Your task to perform on an android device: open app "Google Drive" Image 0: 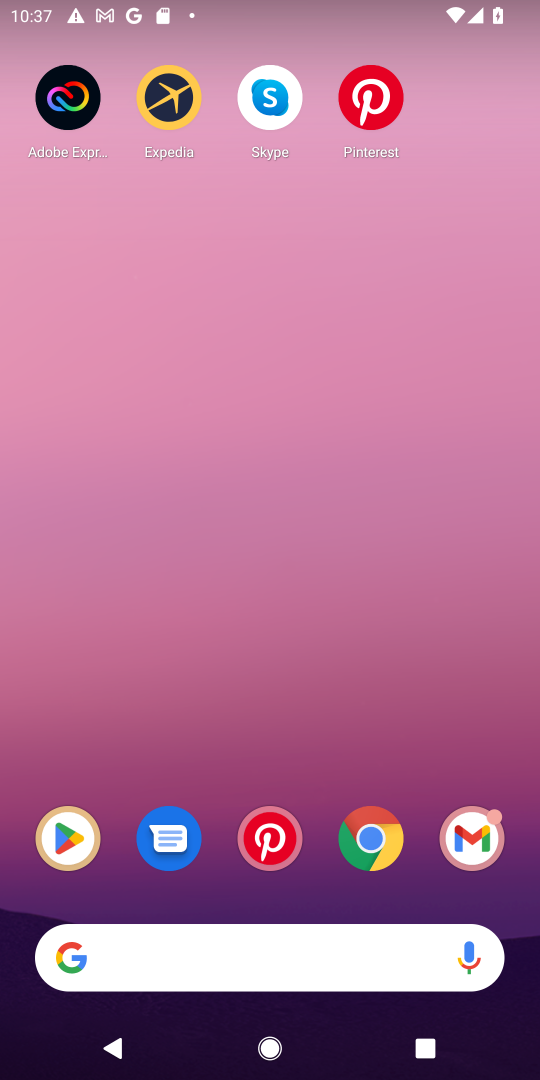
Step 0: drag from (313, 745) to (316, 158)
Your task to perform on an android device: open app "Google Drive" Image 1: 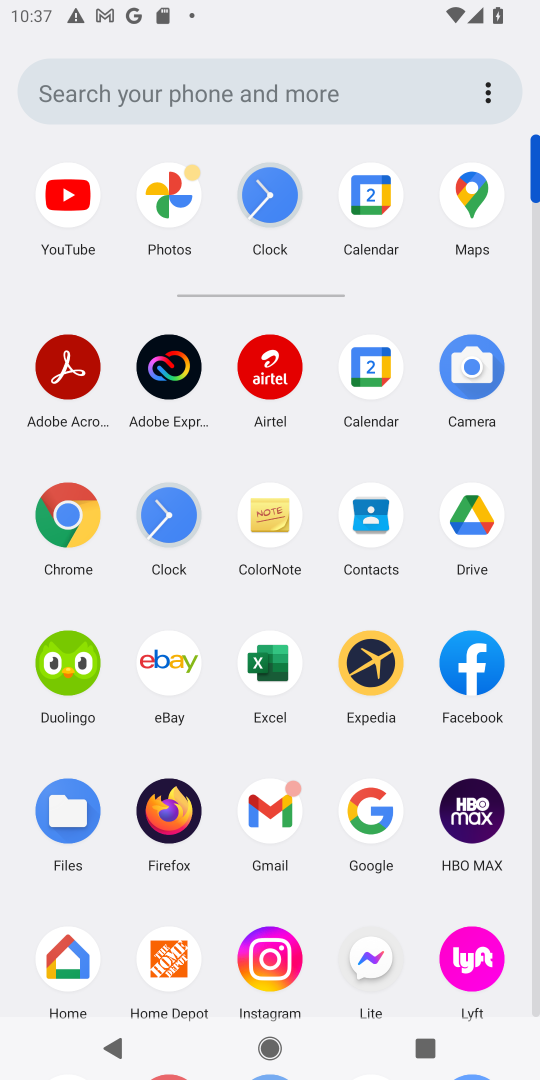
Step 1: drag from (313, 767) to (323, 392)
Your task to perform on an android device: open app "Google Drive" Image 2: 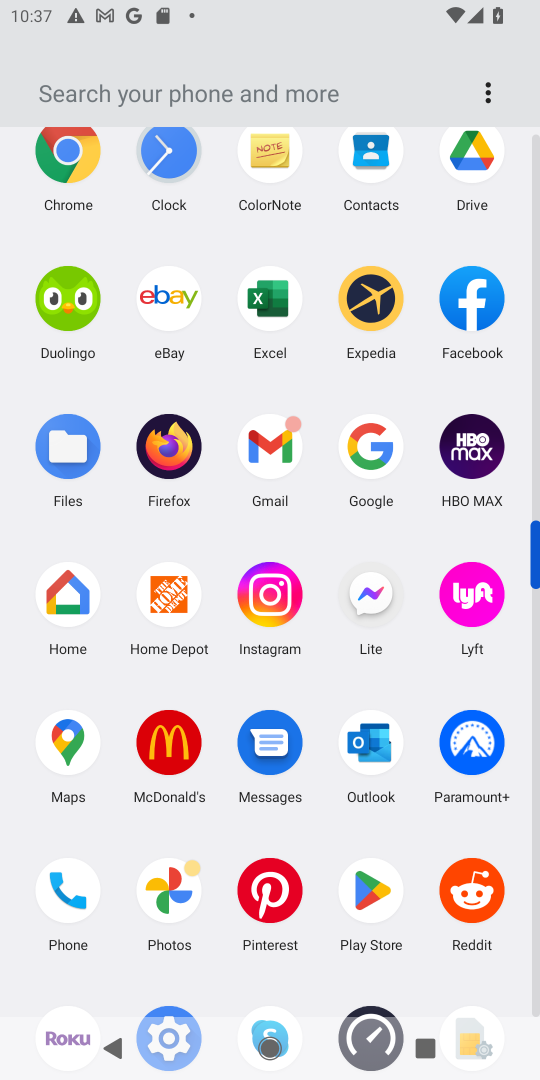
Step 2: drag from (313, 840) to (311, 547)
Your task to perform on an android device: open app "Google Drive" Image 3: 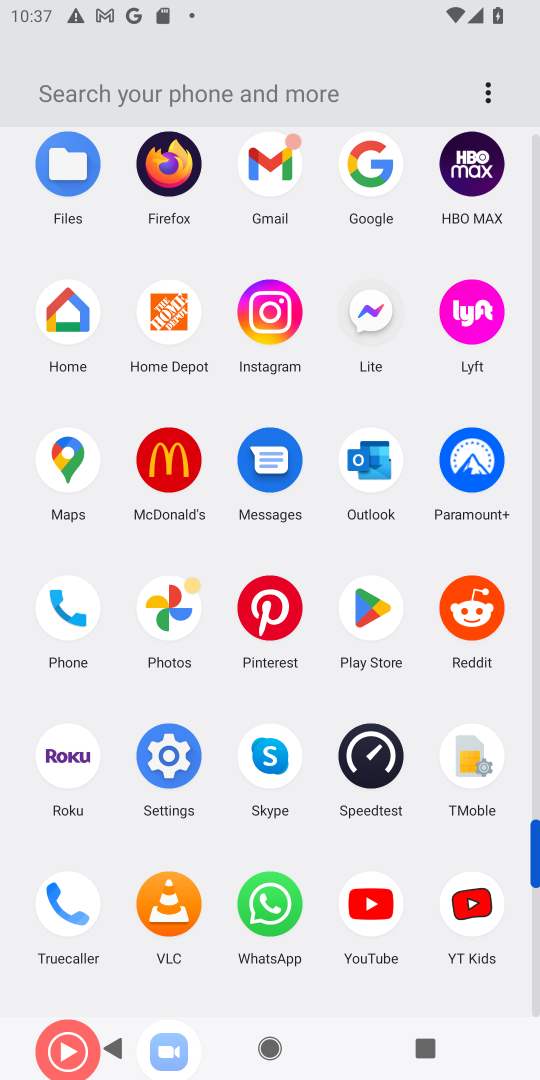
Step 3: click (374, 603)
Your task to perform on an android device: open app "Google Drive" Image 4: 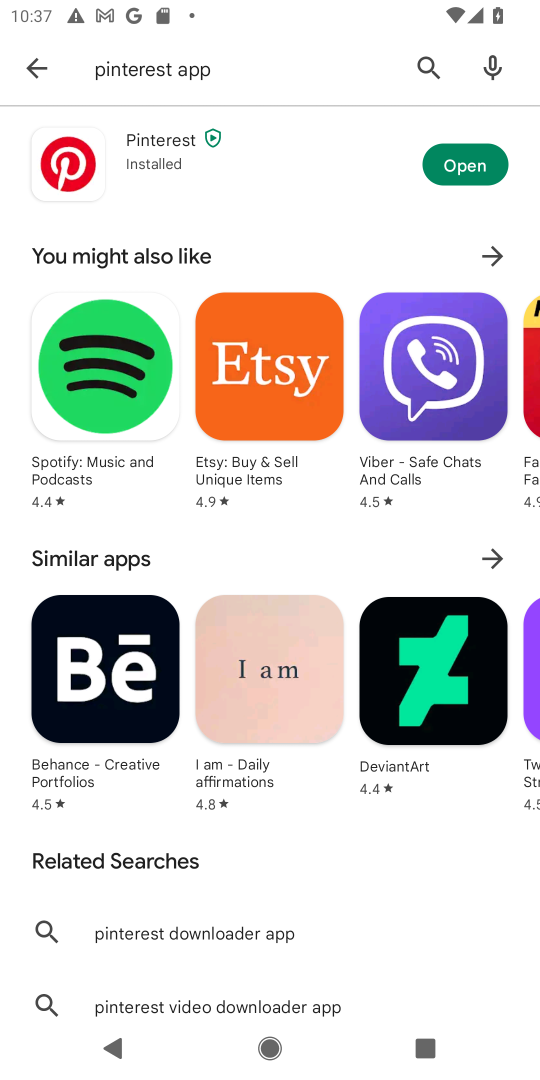
Step 4: click (425, 60)
Your task to perform on an android device: open app "Google Drive" Image 5: 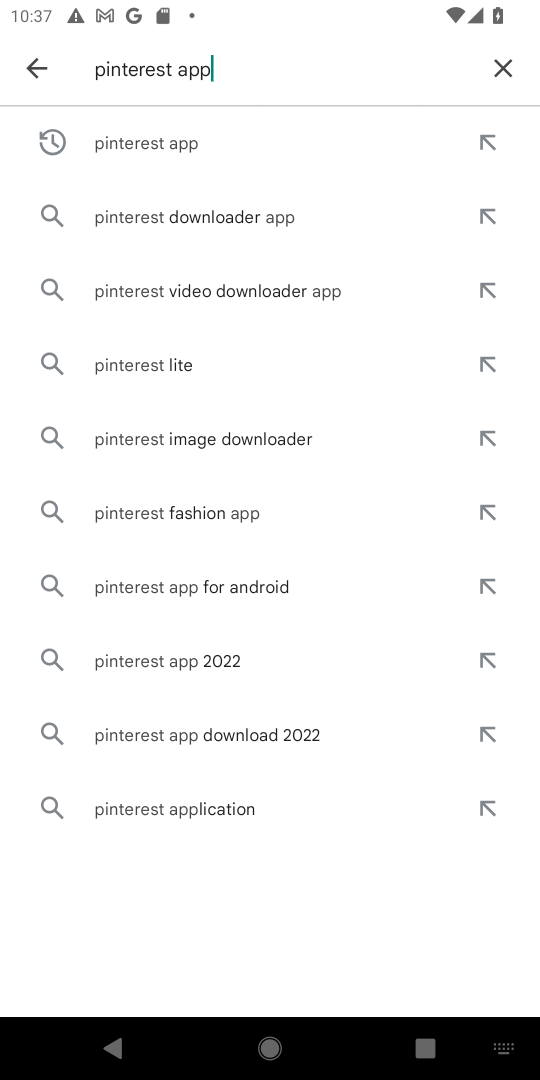
Step 5: click (509, 62)
Your task to perform on an android device: open app "Google Drive" Image 6: 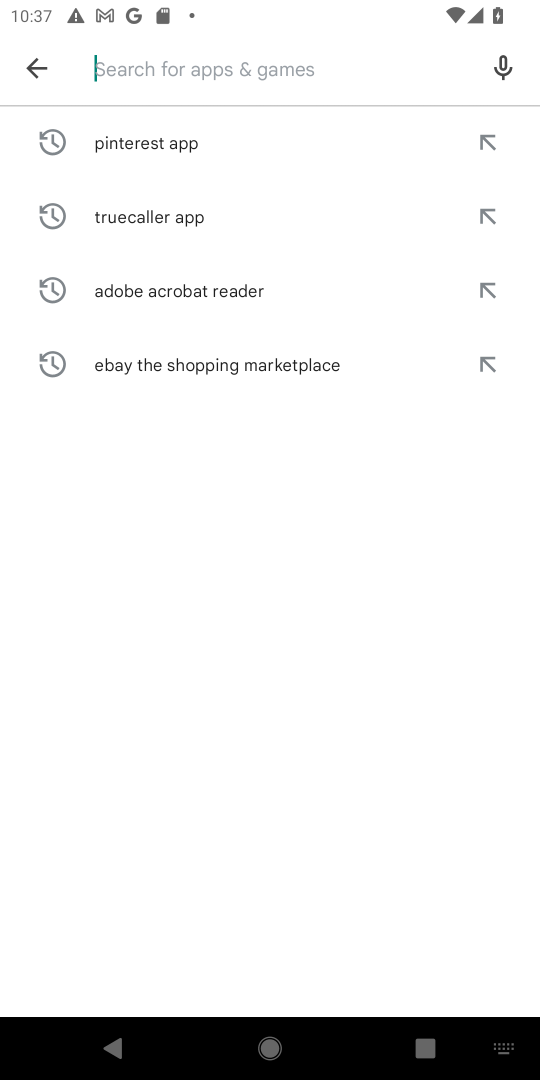
Step 6: type "google drive"
Your task to perform on an android device: open app "Google Drive" Image 7: 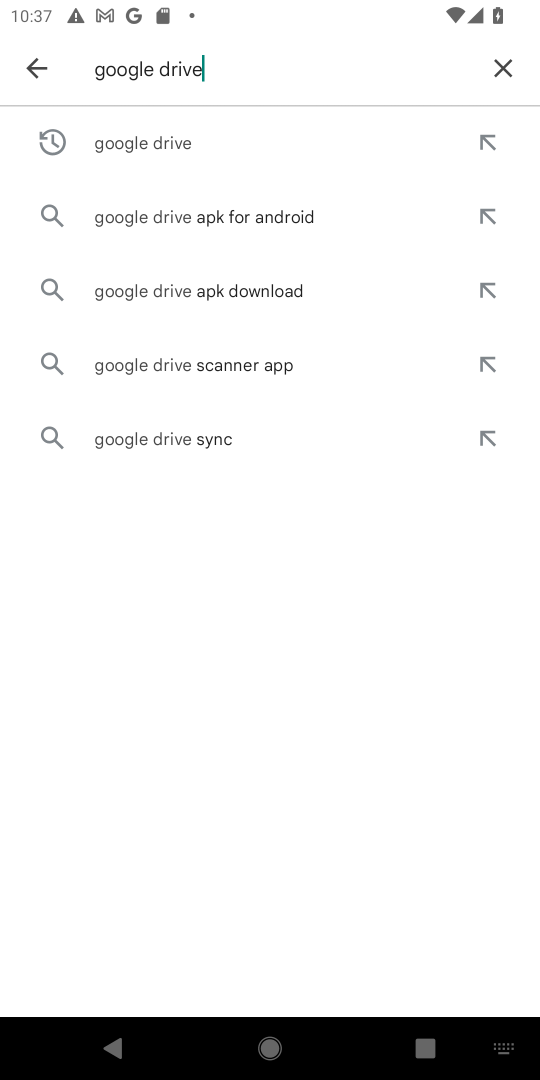
Step 7: click (181, 141)
Your task to perform on an android device: open app "Google Drive" Image 8: 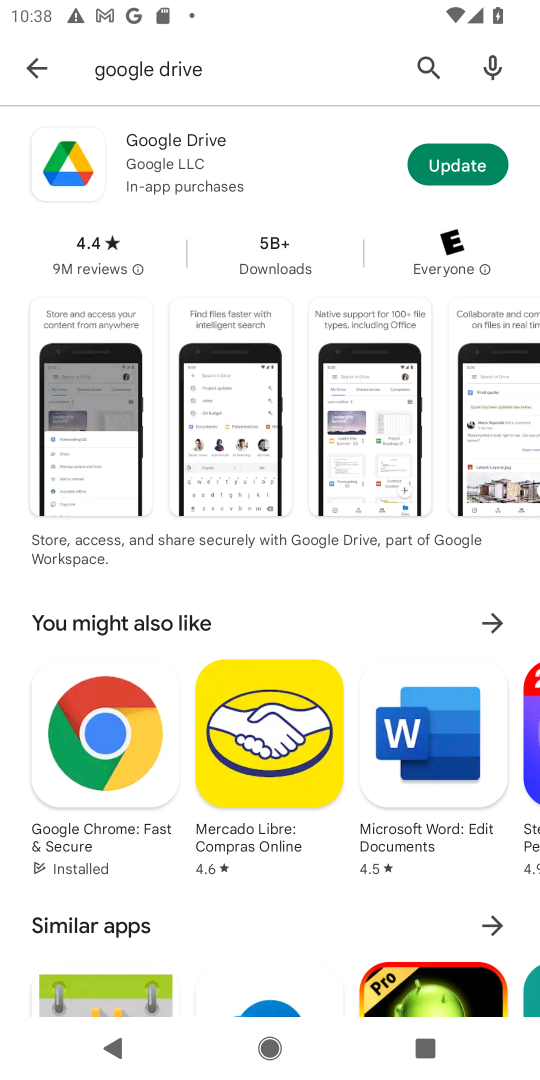
Step 8: click (459, 163)
Your task to perform on an android device: open app "Google Drive" Image 9: 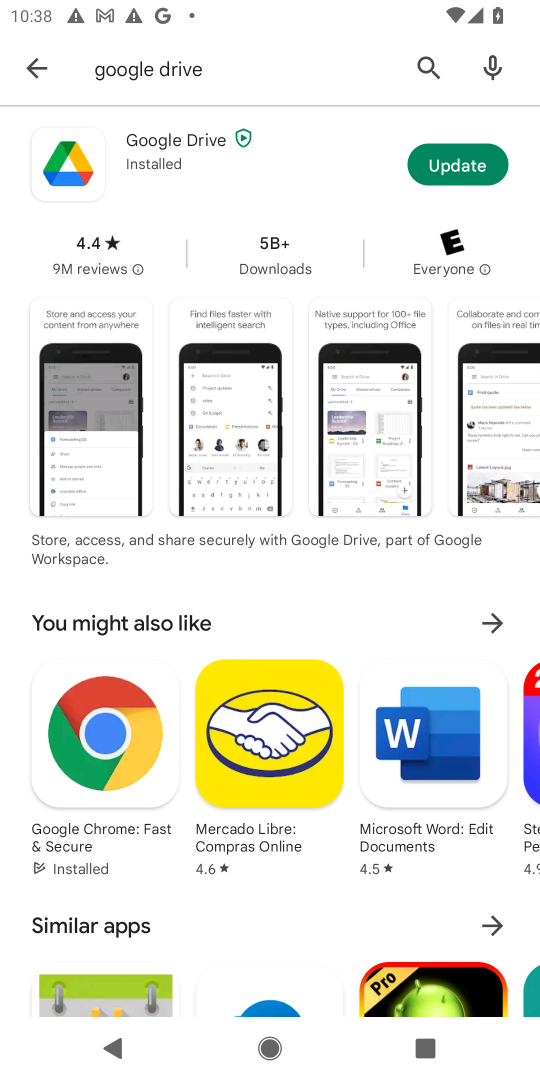
Step 9: click (452, 157)
Your task to perform on an android device: open app "Google Drive" Image 10: 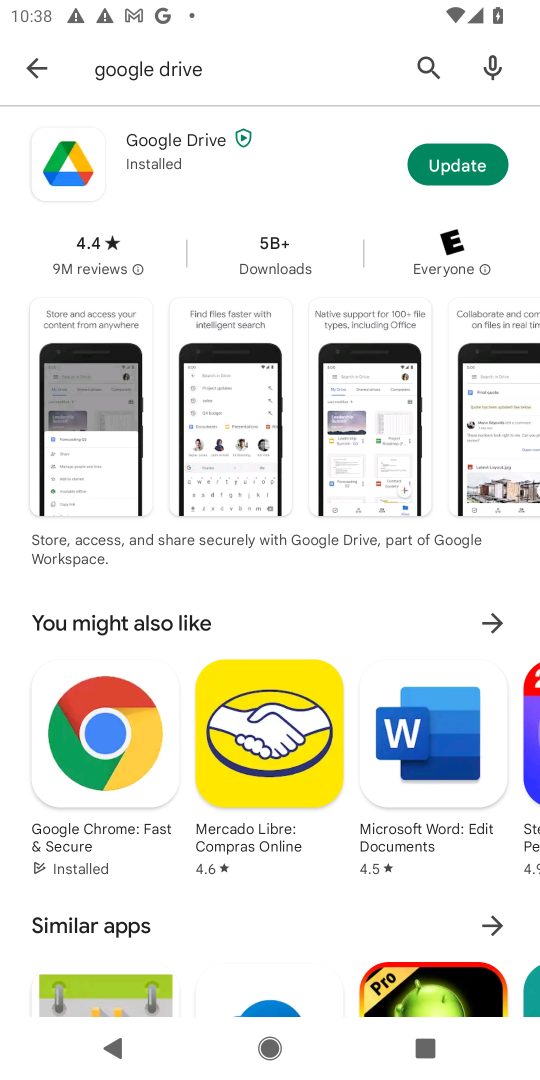
Step 10: task complete